Your task to perform on an android device: turn off airplane mode Image 0: 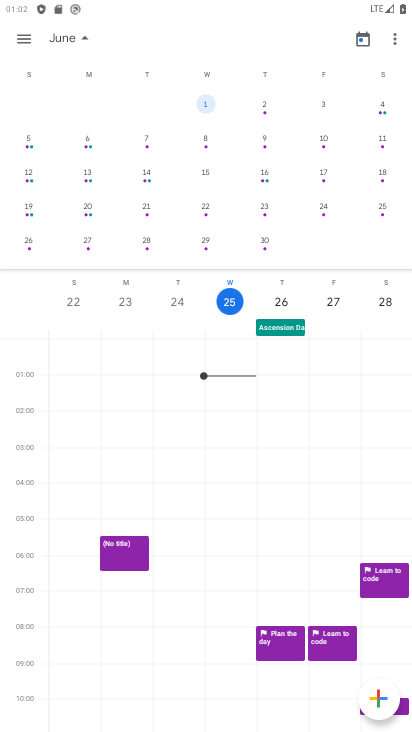
Step 0: press home button
Your task to perform on an android device: turn off airplane mode Image 1: 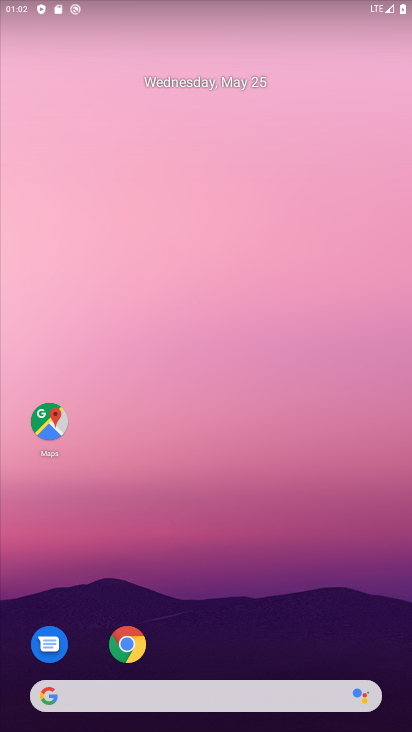
Step 1: drag from (267, 533) to (195, 36)
Your task to perform on an android device: turn off airplane mode Image 2: 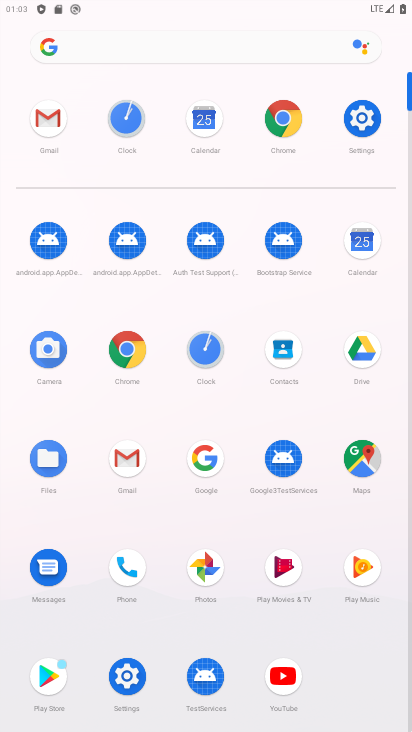
Step 2: click (361, 117)
Your task to perform on an android device: turn off airplane mode Image 3: 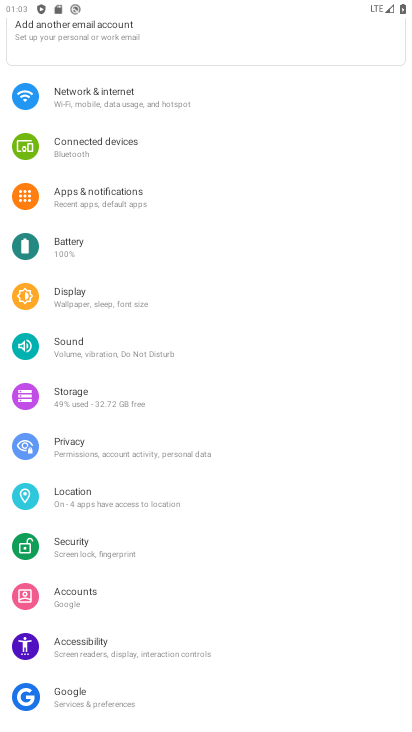
Step 3: click (98, 86)
Your task to perform on an android device: turn off airplane mode Image 4: 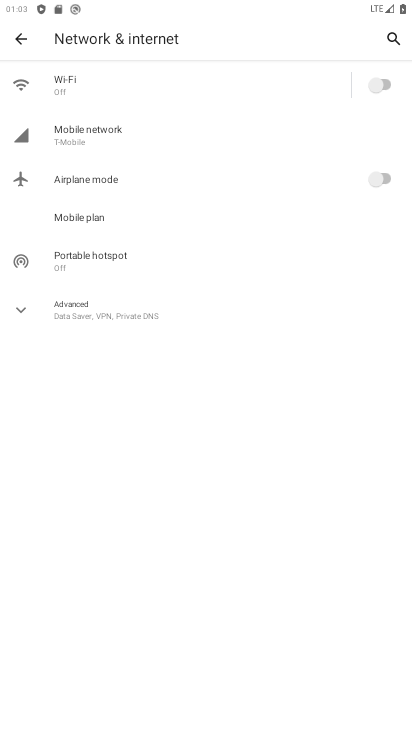
Step 4: task complete